Your task to perform on an android device: refresh tabs in the chrome app Image 0: 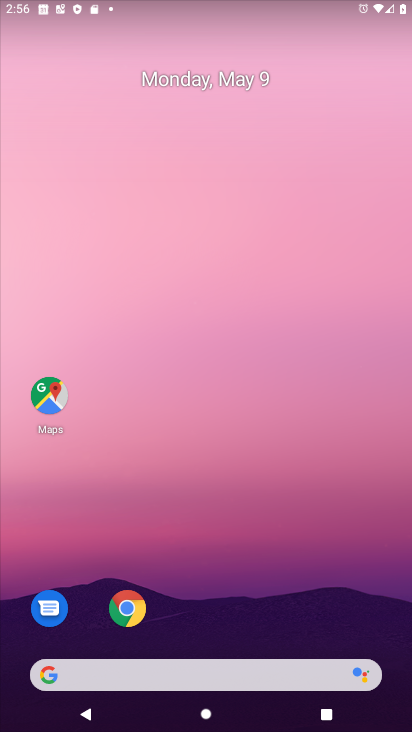
Step 0: click (115, 618)
Your task to perform on an android device: refresh tabs in the chrome app Image 1: 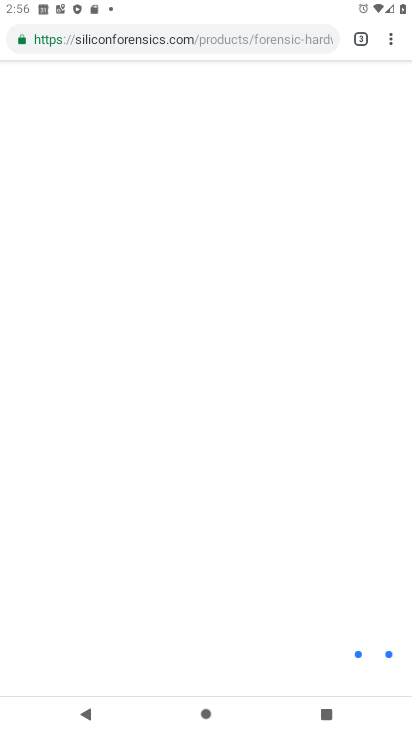
Step 1: click (402, 41)
Your task to perform on an android device: refresh tabs in the chrome app Image 2: 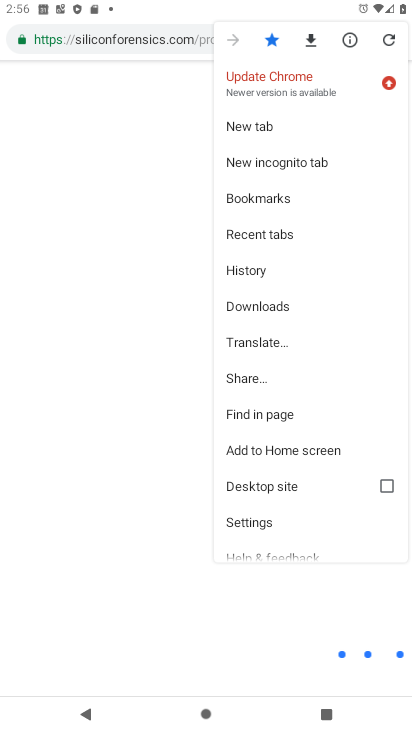
Step 2: click (383, 45)
Your task to perform on an android device: refresh tabs in the chrome app Image 3: 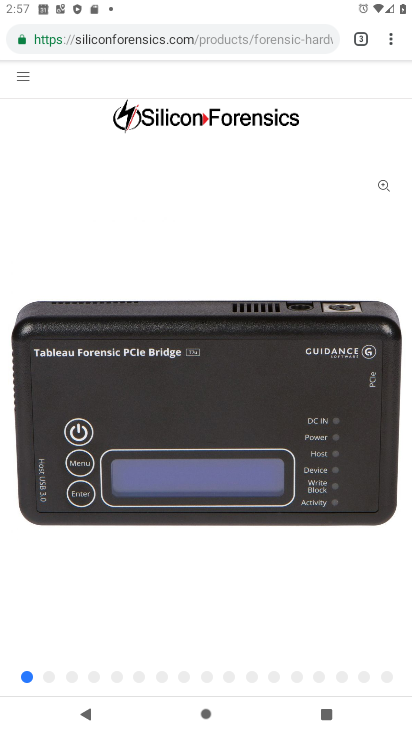
Step 3: task complete